Your task to perform on an android device: uninstall "AliExpress" Image 0: 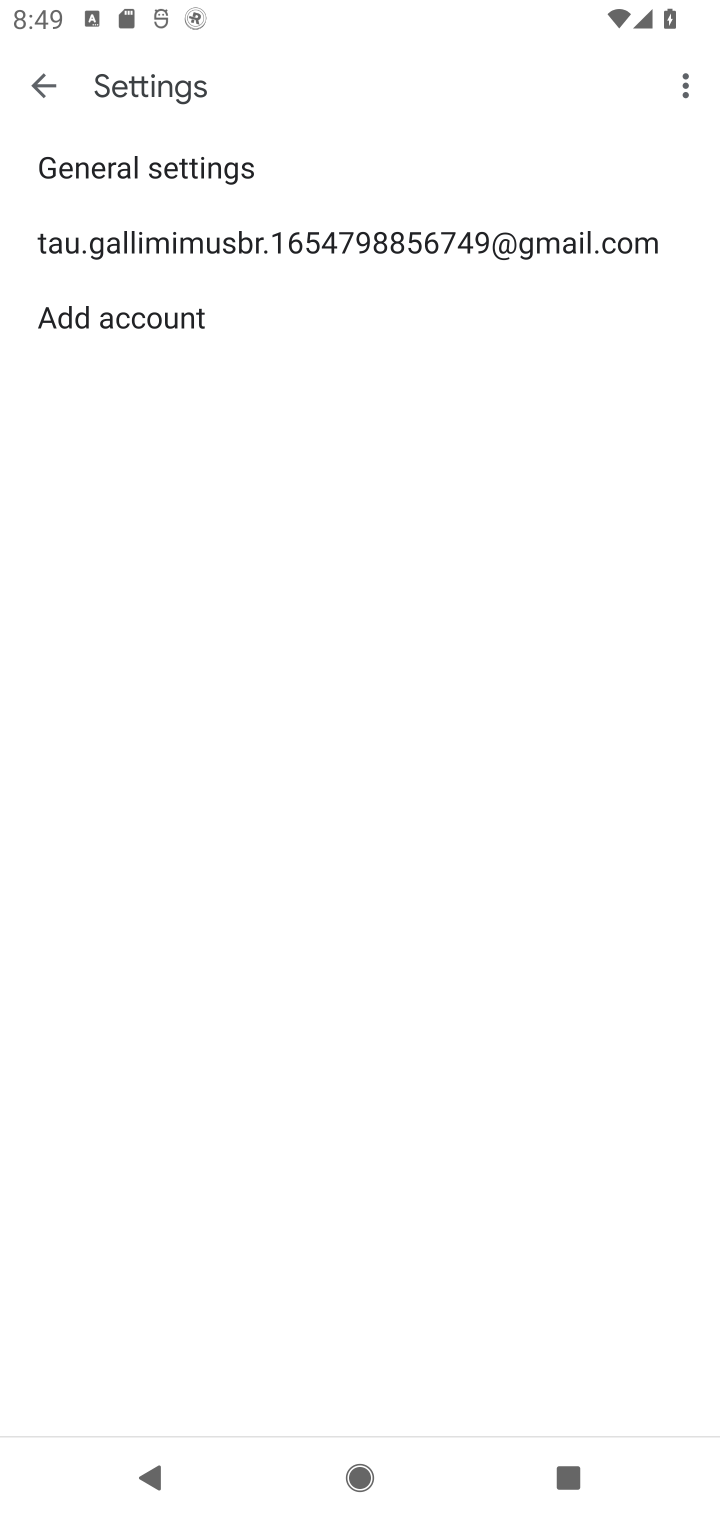
Step 0: press home button
Your task to perform on an android device: uninstall "AliExpress" Image 1: 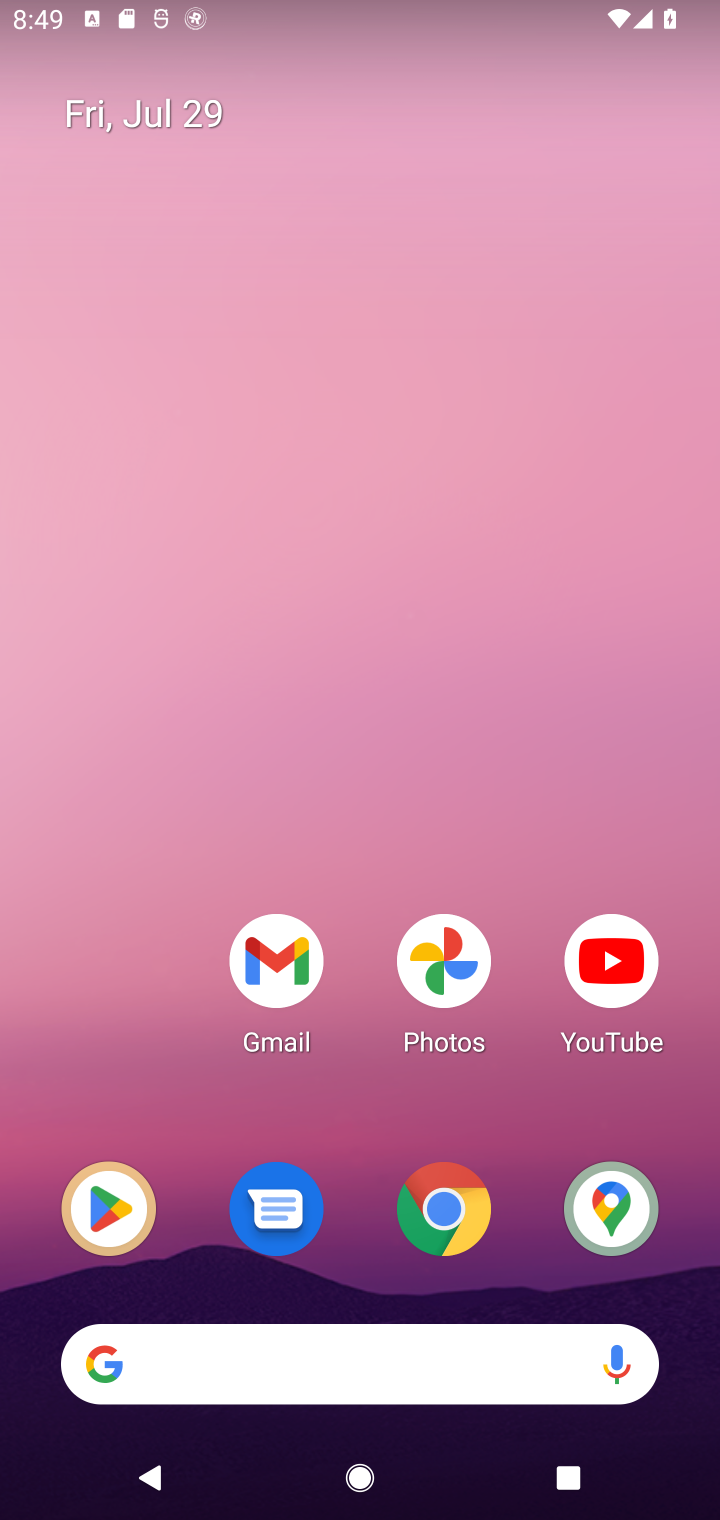
Step 1: click (105, 1231)
Your task to perform on an android device: uninstall "AliExpress" Image 2: 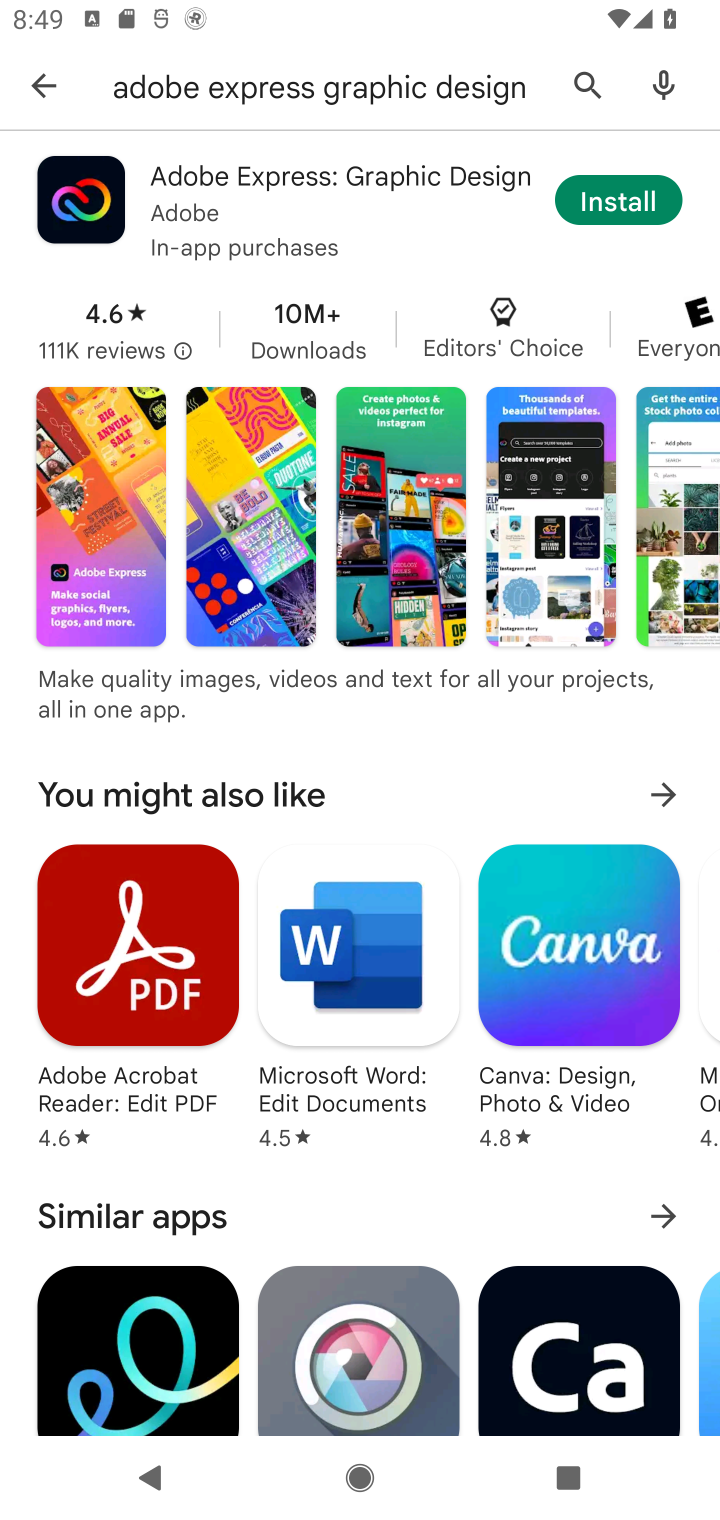
Step 2: click (571, 80)
Your task to perform on an android device: uninstall "AliExpress" Image 3: 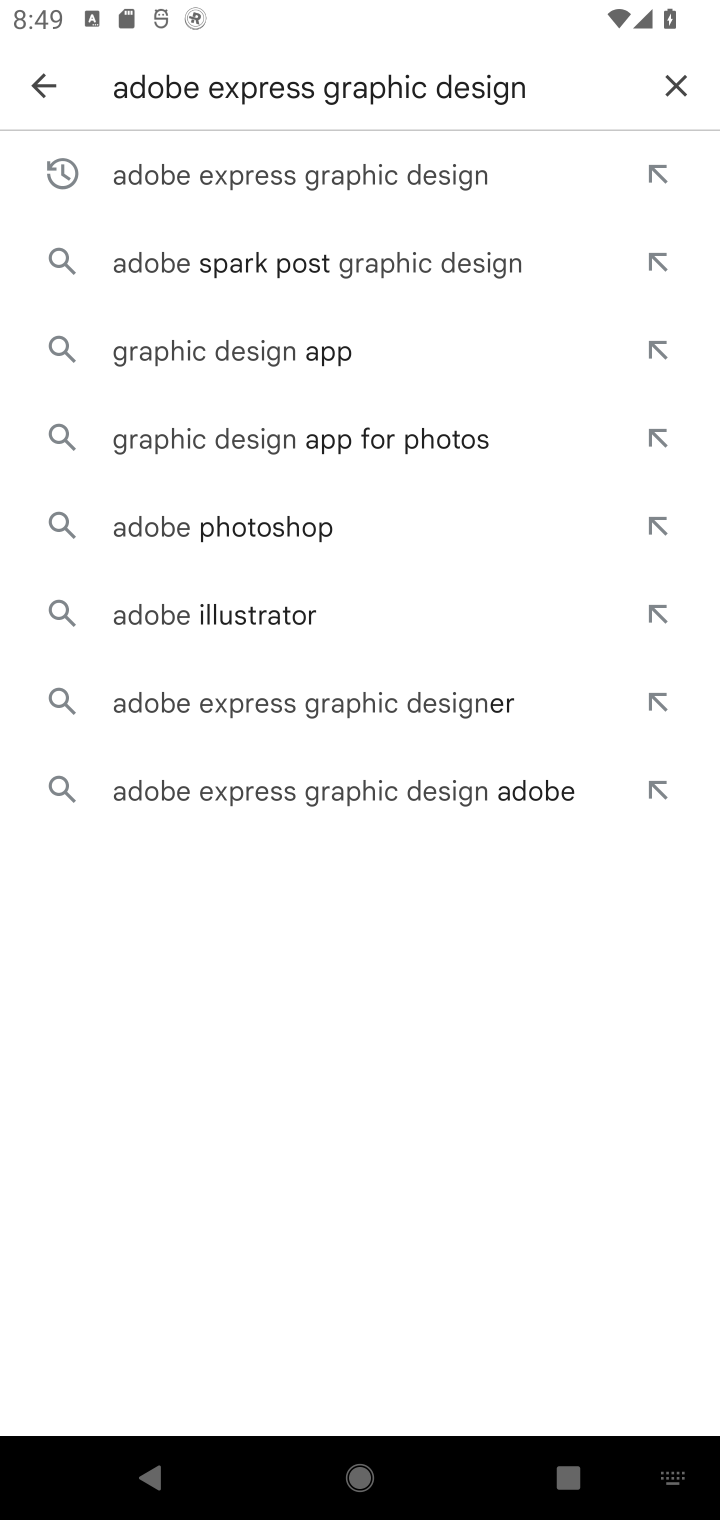
Step 3: click (671, 84)
Your task to perform on an android device: uninstall "AliExpress" Image 4: 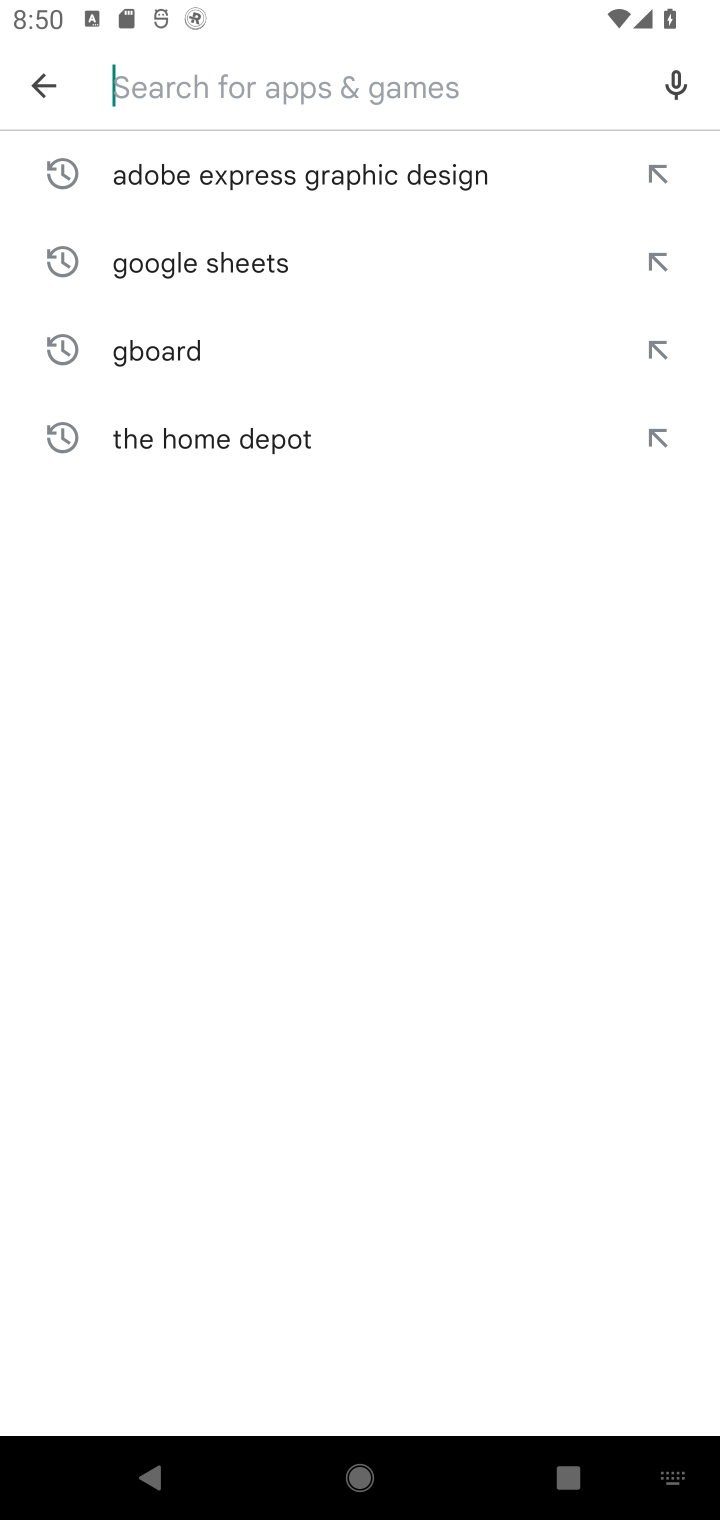
Step 4: type "AliExpress"
Your task to perform on an android device: uninstall "AliExpress" Image 5: 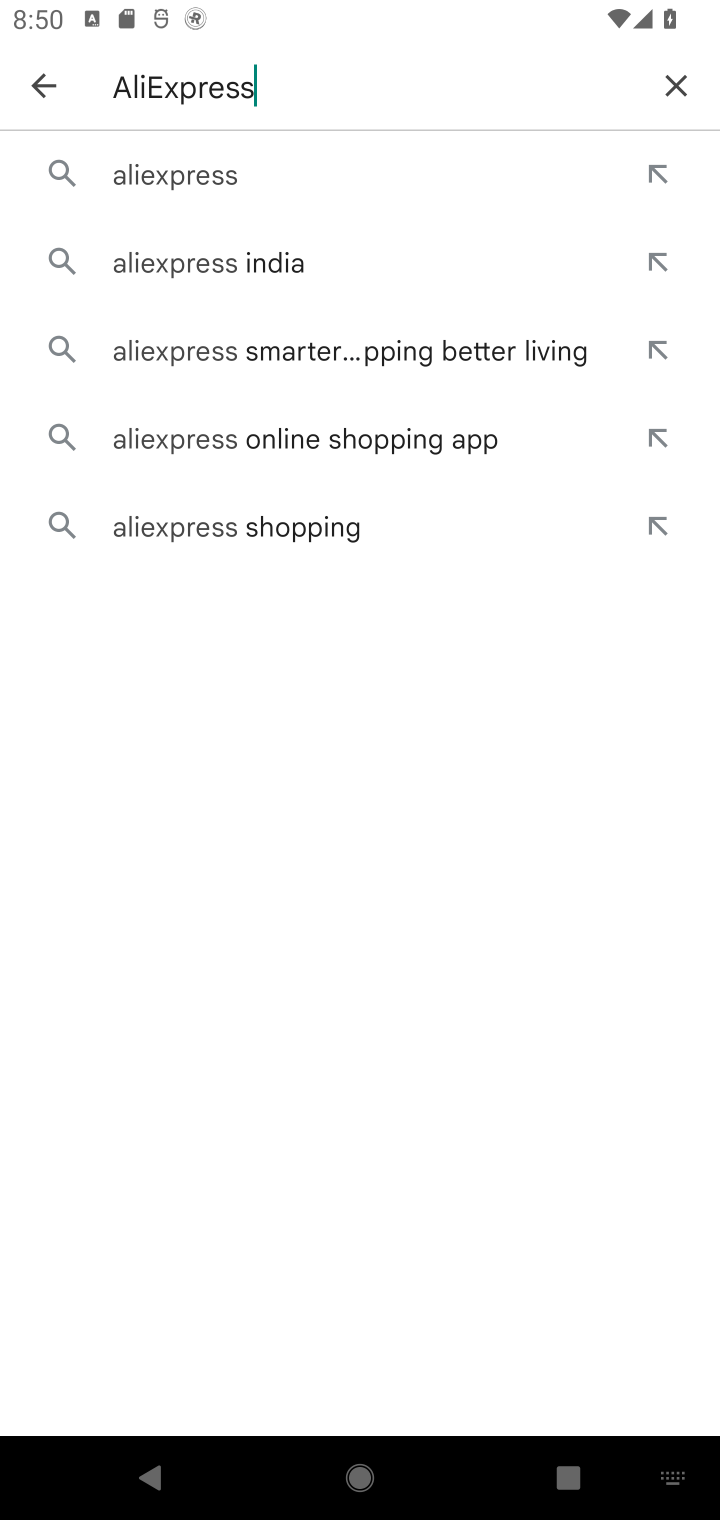
Step 5: click (136, 203)
Your task to perform on an android device: uninstall "AliExpress" Image 6: 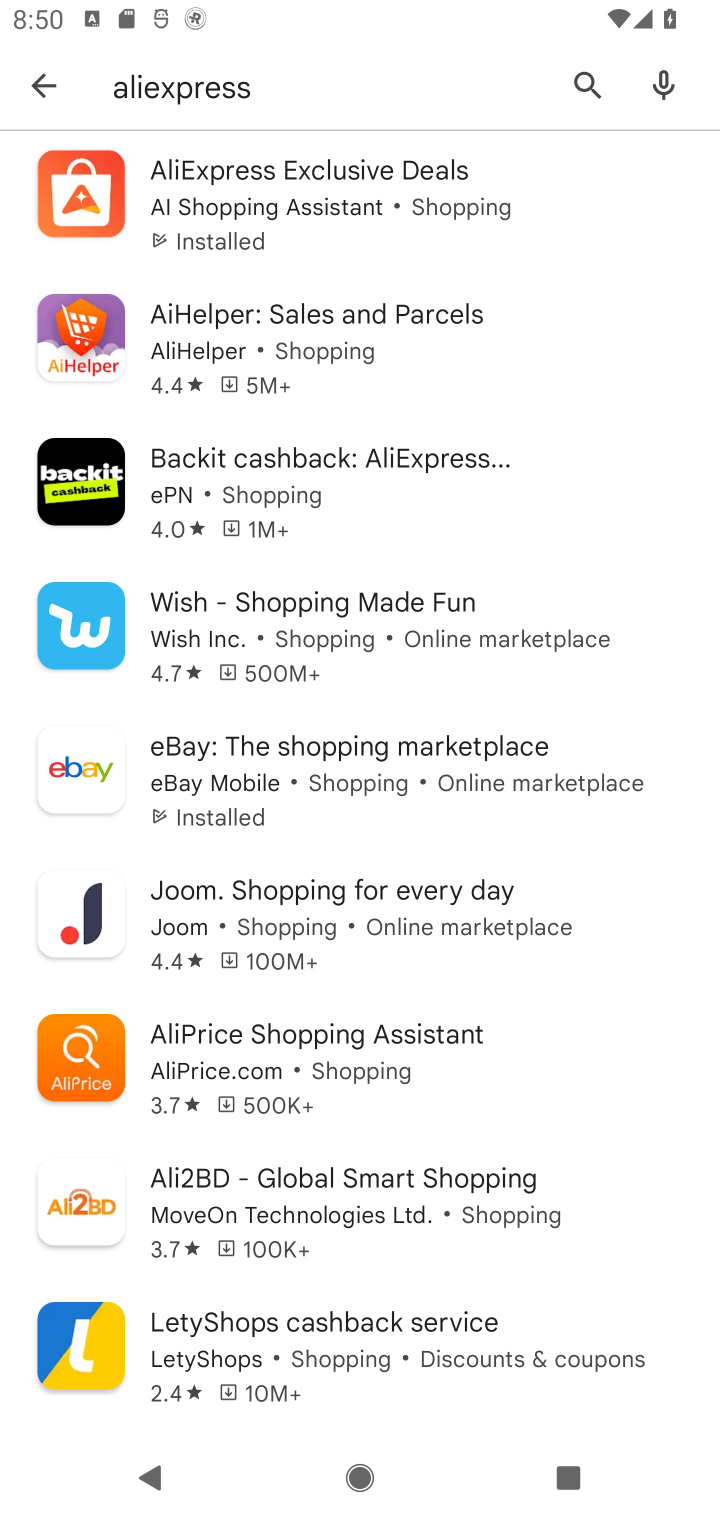
Step 6: click (186, 196)
Your task to perform on an android device: uninstall "AliExpress" Image 7: 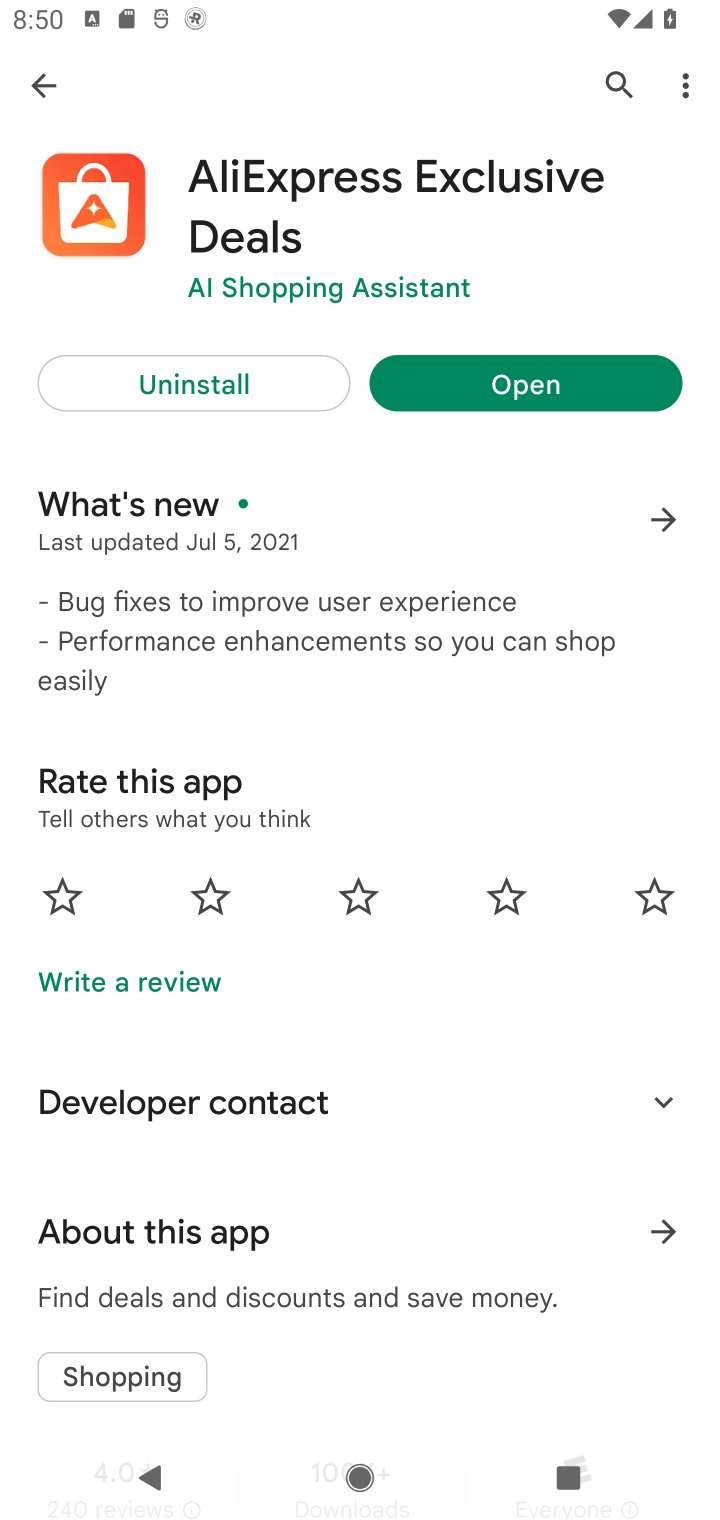
Step 7: click (230, 391)
Your task to perform on an android device: uninstall "AliExpress" Image 8: 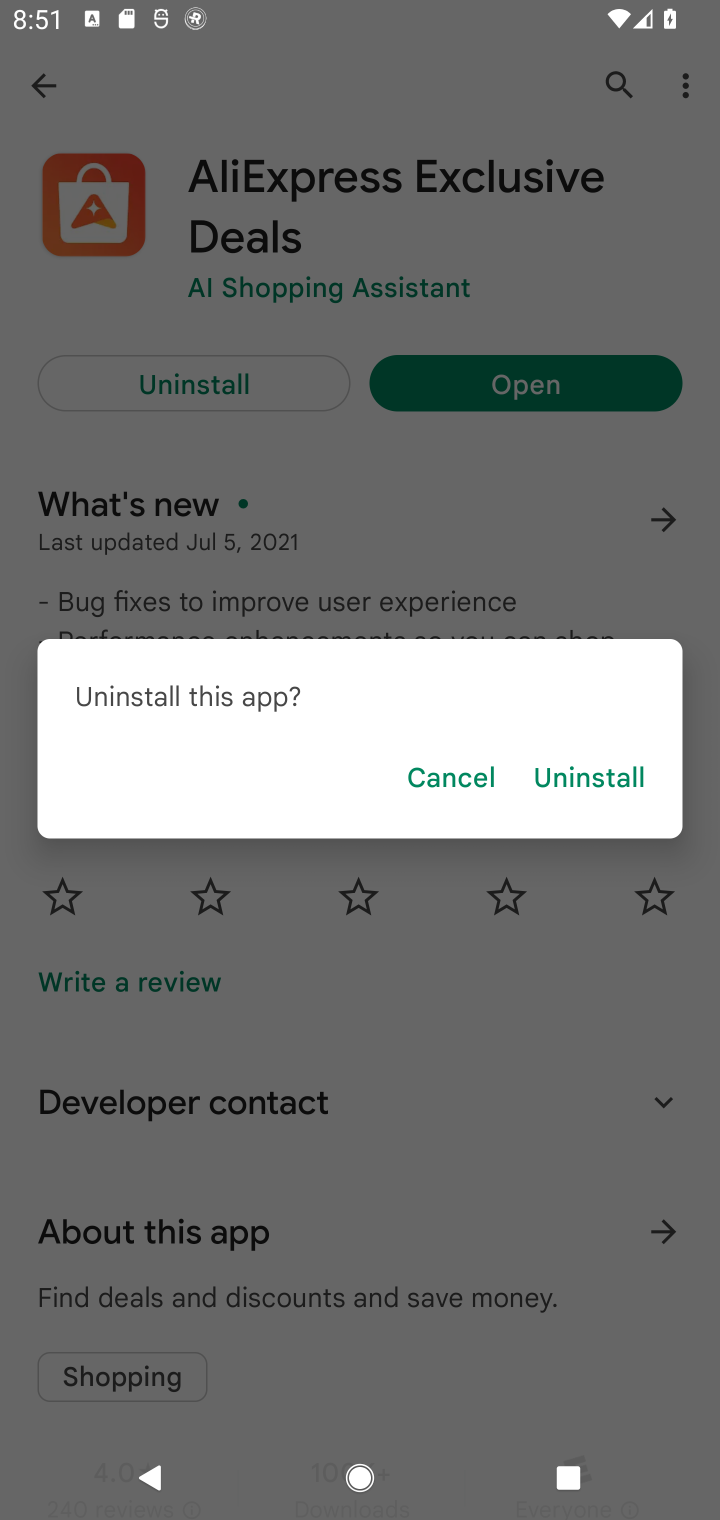
Step 8: click (604, 788)
Your task to perform on an android device: uninstall "AliExpress" Image 9: 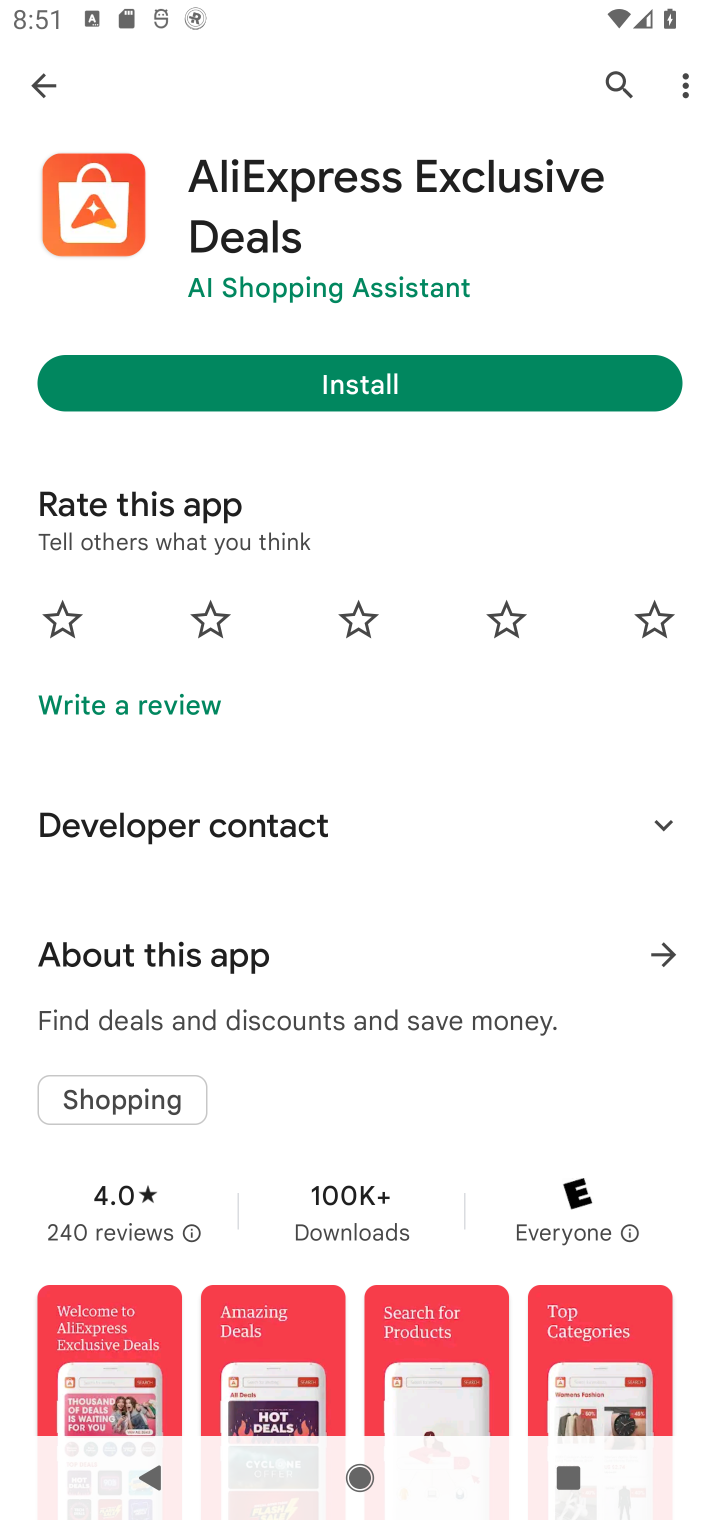
Step 9: task complete